Your task to perform on an android device: Open calendar and show me the fourth week of next month Image 0: 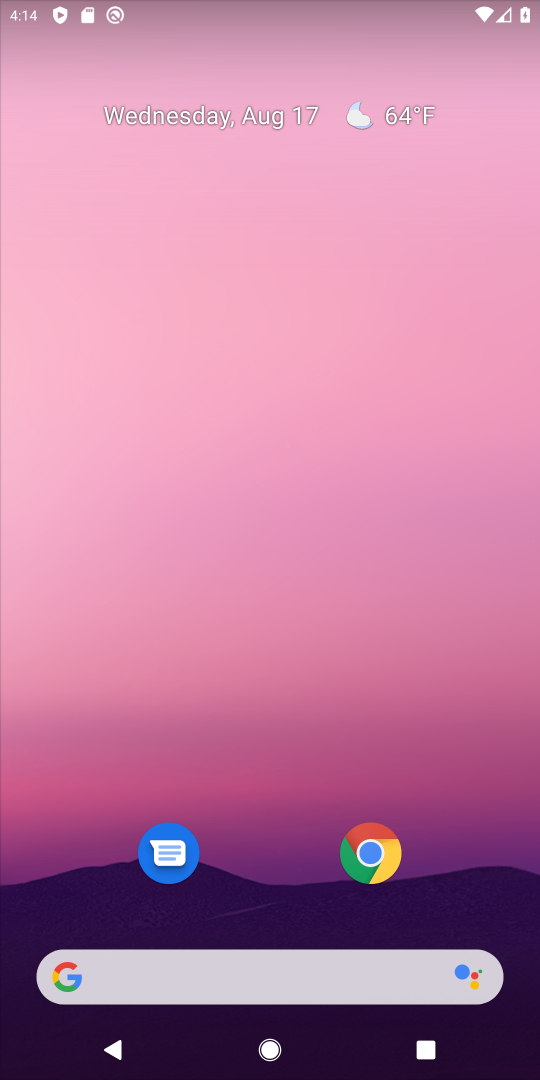
Step 0: drag from (513, 929) to (413, 128)
Your task to perform on an android device: Open calendar and show me the fourth week of next month Image 1: 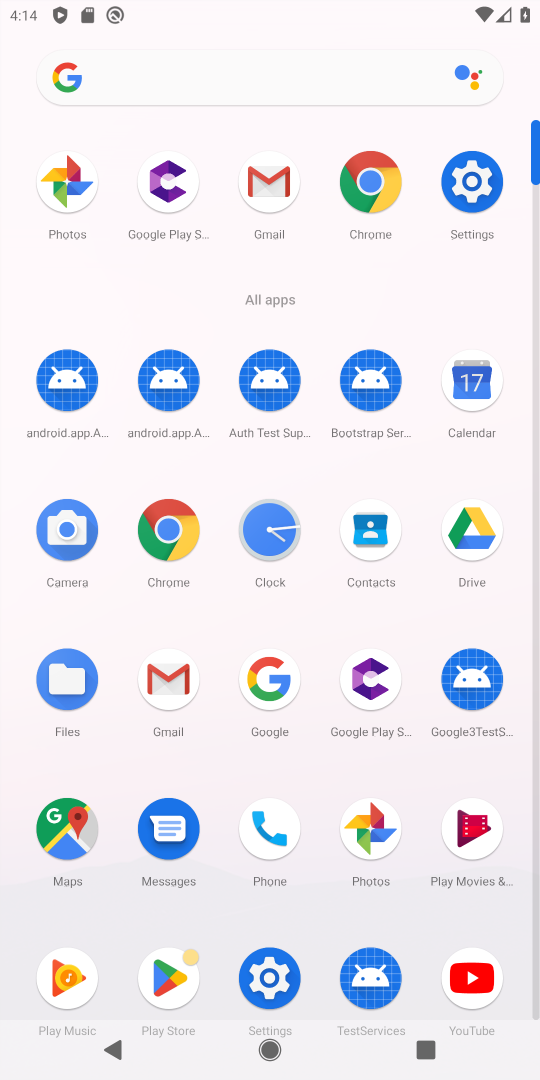
Step 1: click (476, 381)
Your task to perform on an android device: Open calendar and show me the fourth week of next month Image 2: 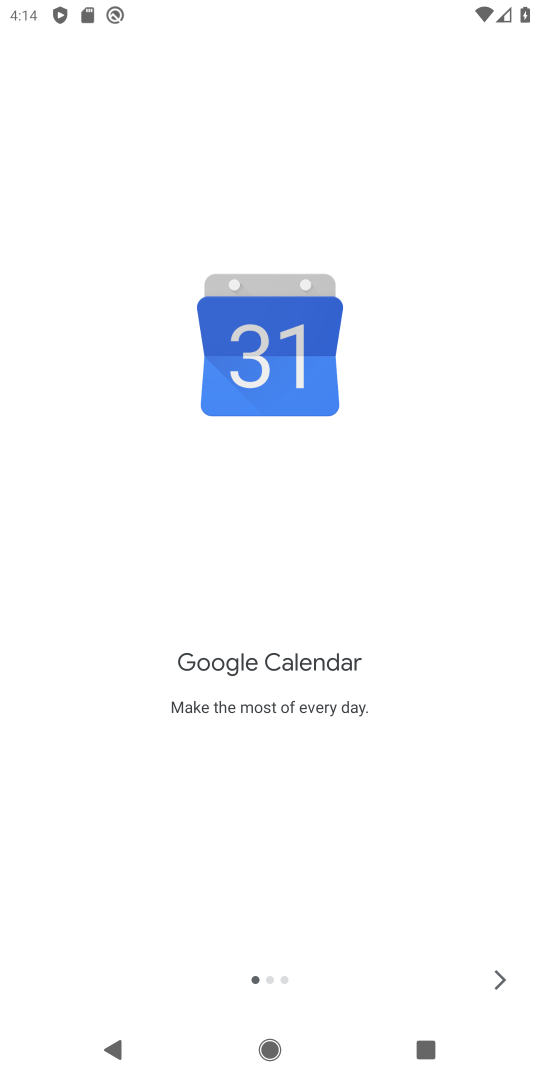
Step 2: click (501, 969)
Your task to perform on an android device: Open calendar and show me the fourth week of next month Image 3: 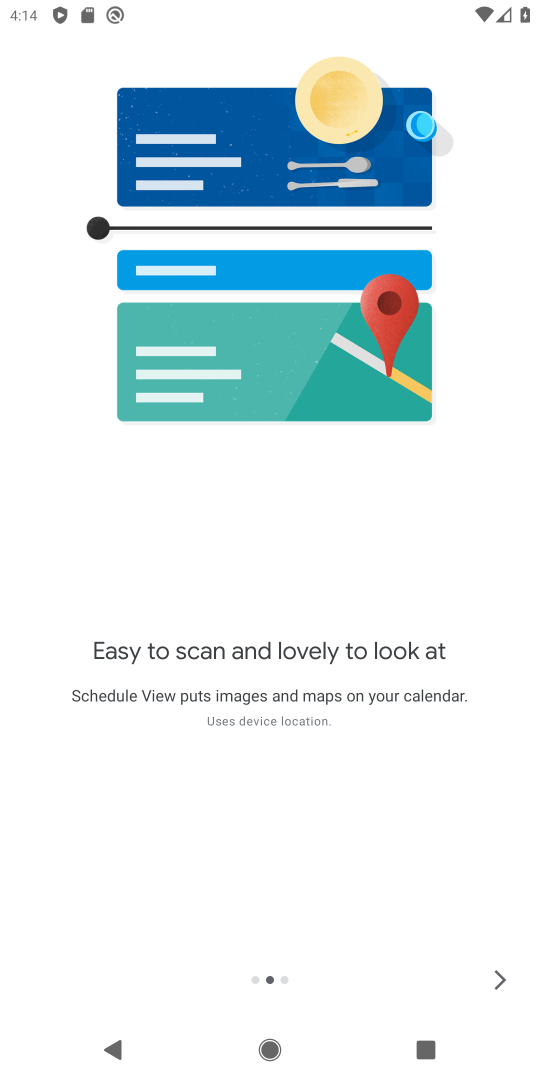
Step 3: click (501, 969)
Your task to perform on an android device: Open calendar and show me the fourth week of next month Image 4: 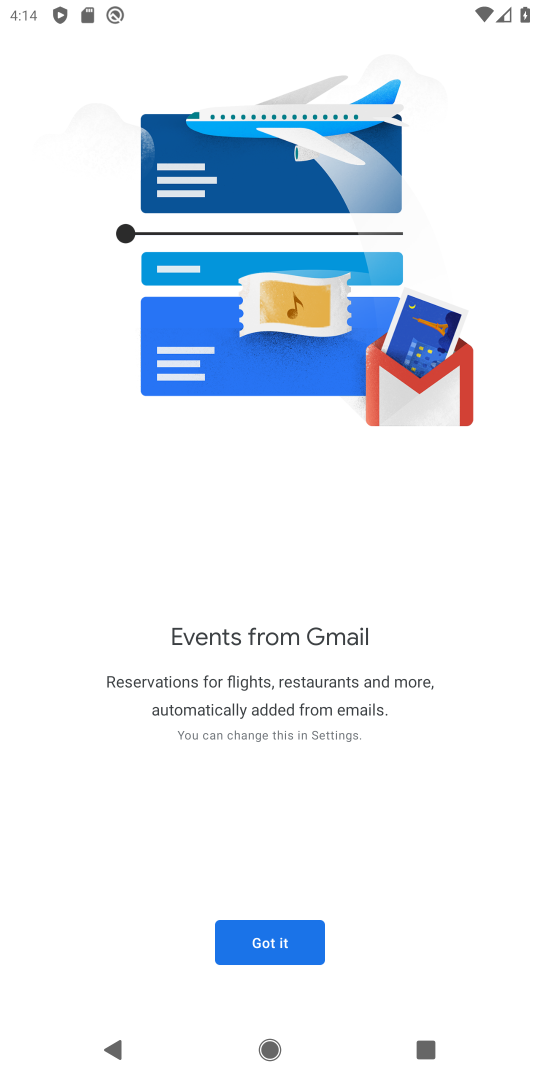
Step 4: click (245, 944)
Your task to perform on an android device: Open calendar and show me the fourth week of next month Image 5: 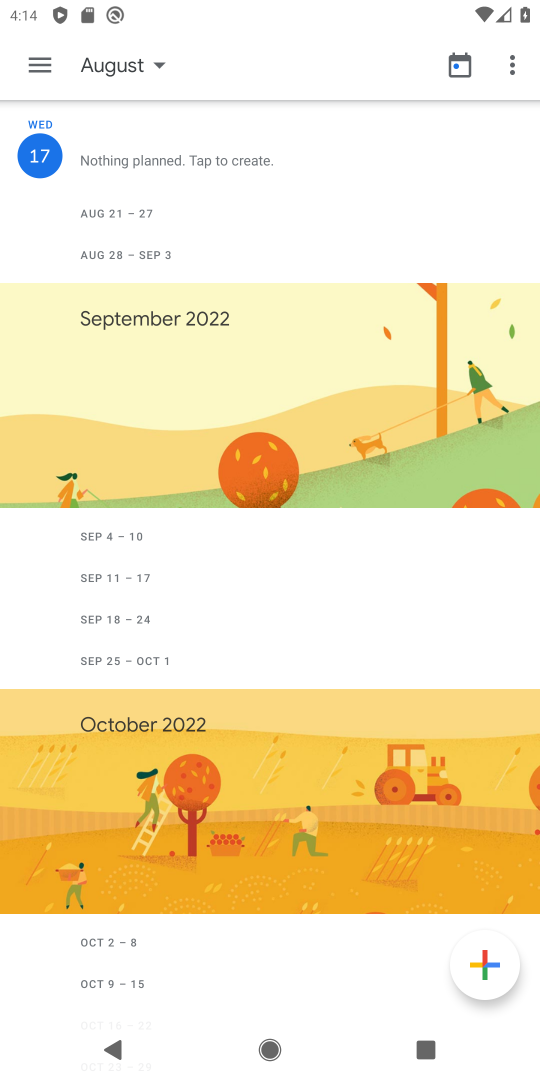
Step 5: click (37, 62)
Your task to perform on an android device: Open calendar and show me the fourth week of next month Image 6: 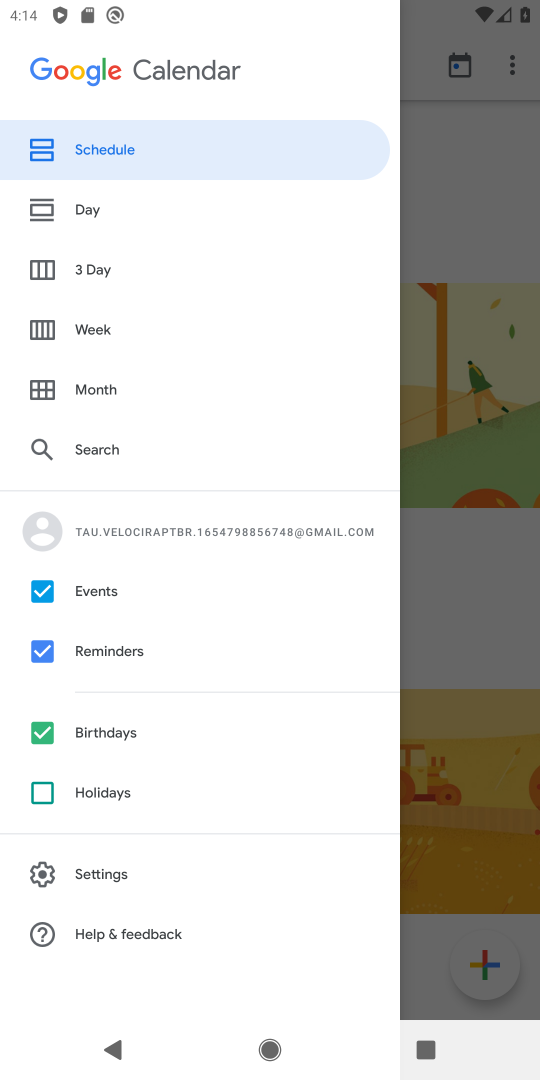
Step 6: click (97, 336)
Your task to perform on an android device: Open calendar and show me the fourth week of next month Image 7: 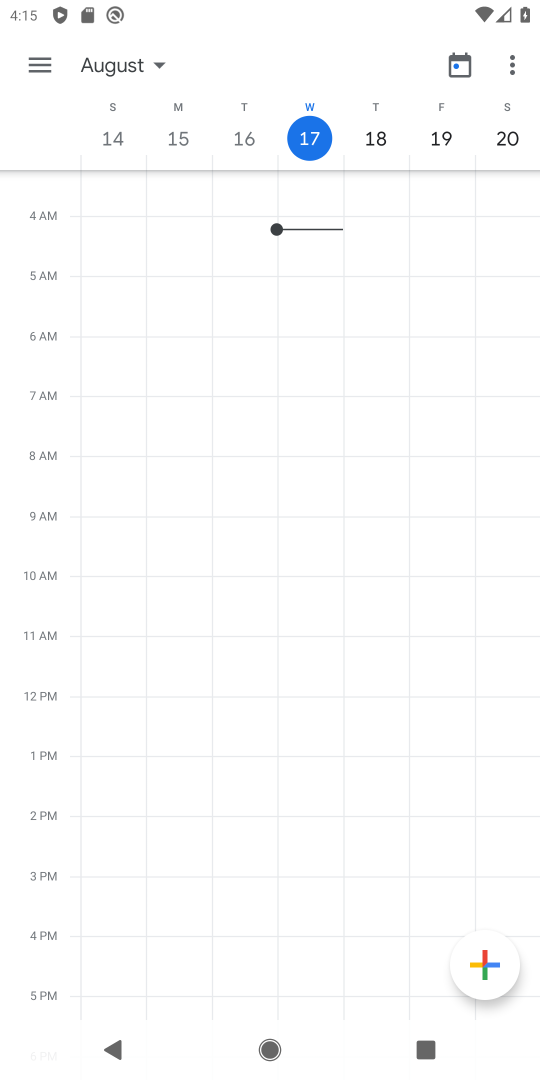
Step 7: click (163, 70)
Your task to perform on an android device: Open calendar and show me the fourth week of next month Image 8: 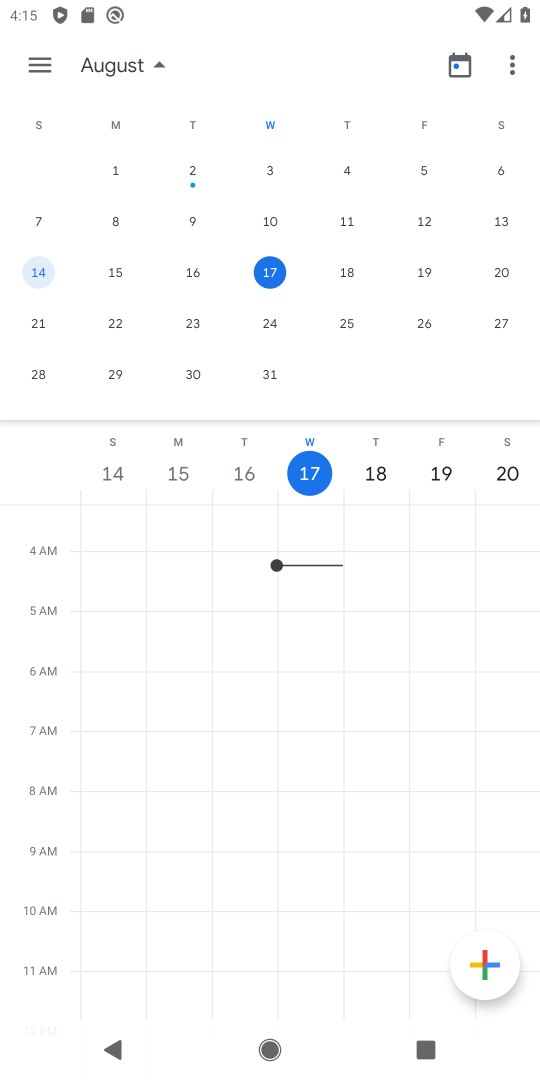
Step 8: drag from (509, 324) to (61, 243)
Your task to perform on an android device: Open calendar and show me the fourth week of next month Image 9: 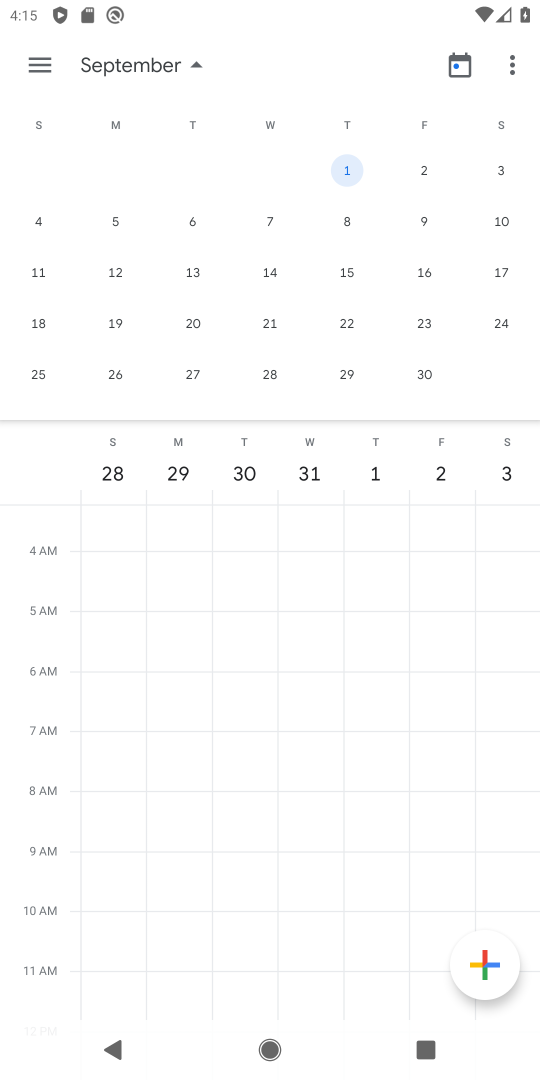
Step 9: click (38, 369)
Your task to perform on an android device: Open calendar and show me the fourth week of next month Image 10: 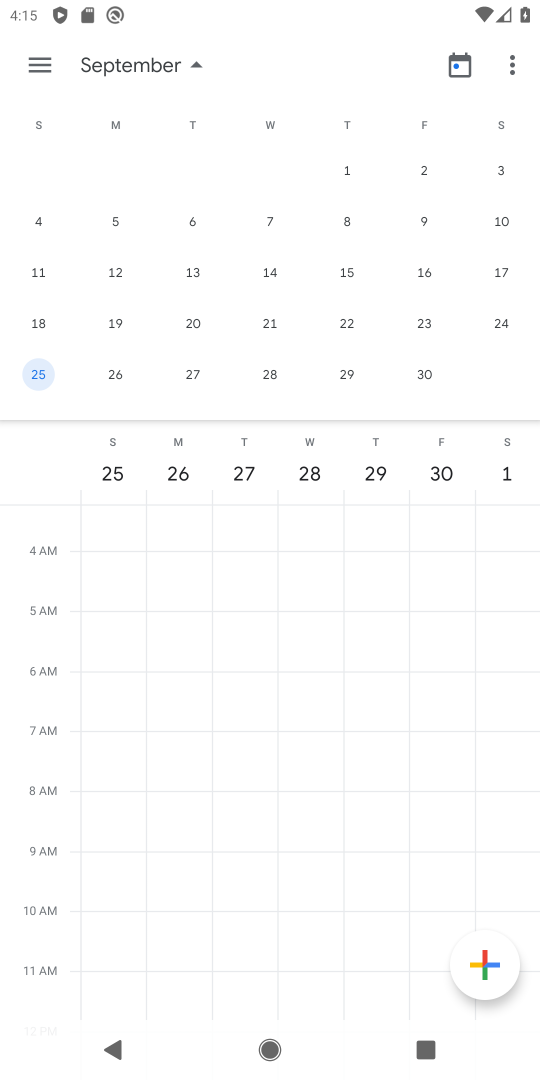
Step 10: task complete